Your task to perform on an android device: turn notification dots off Image 0: 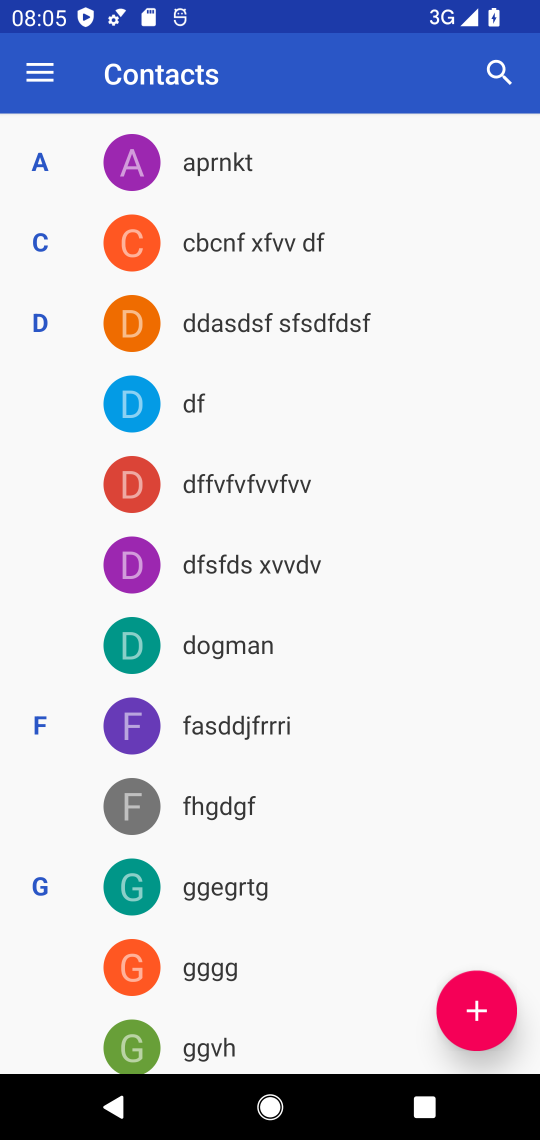
Step 0: press home button
Your task to perform on an android device: turn notification dots off Image 1: 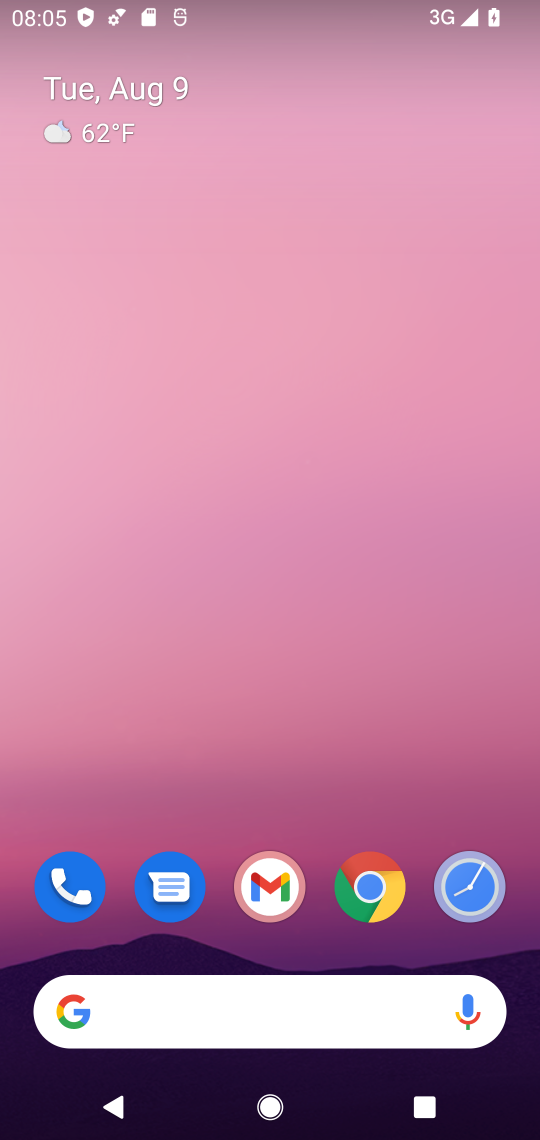
Step 1: drag from (313, 790) to (420, 9)
Your task to perform on an android device: turn notification dots off Image 2: 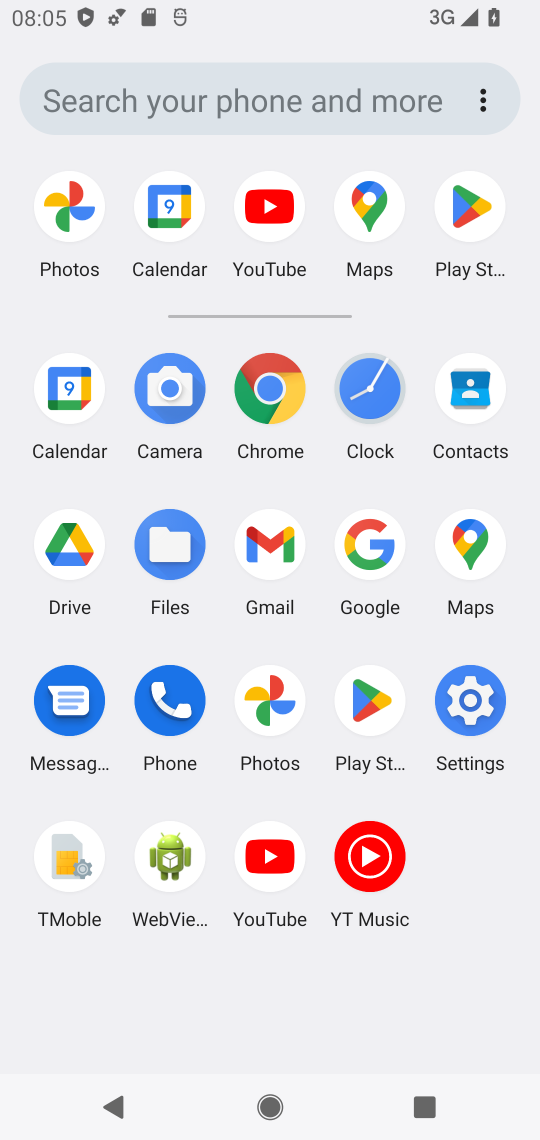
Step 2: click (467, 700)
Your task to perform on an android device: turn notification dots off Image 3: 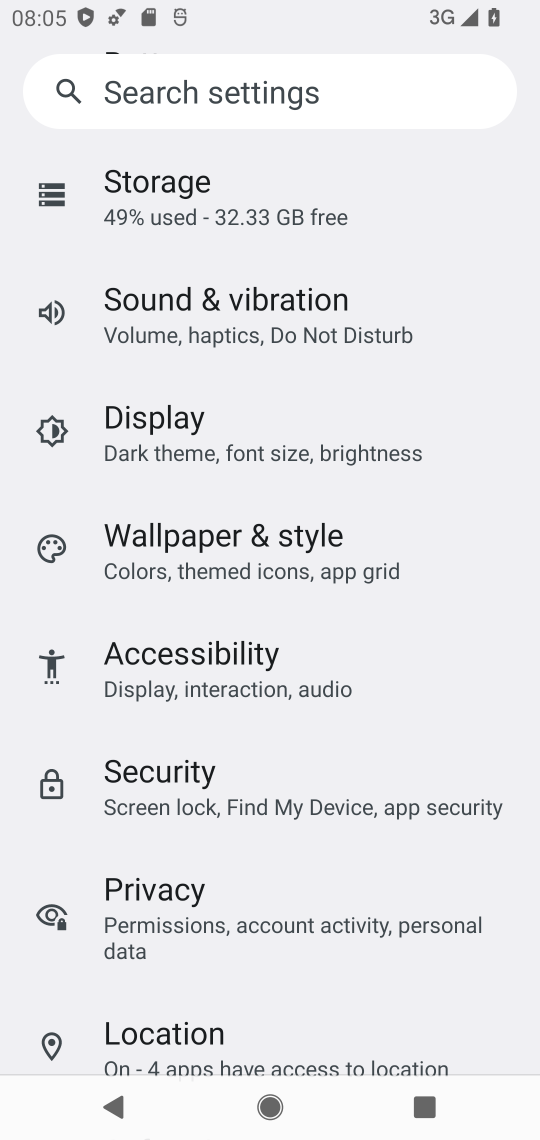
Step 3: drag from (367, 285) to (447, 856)
Your task to perform on an android device: turn notification dots off Image 4: 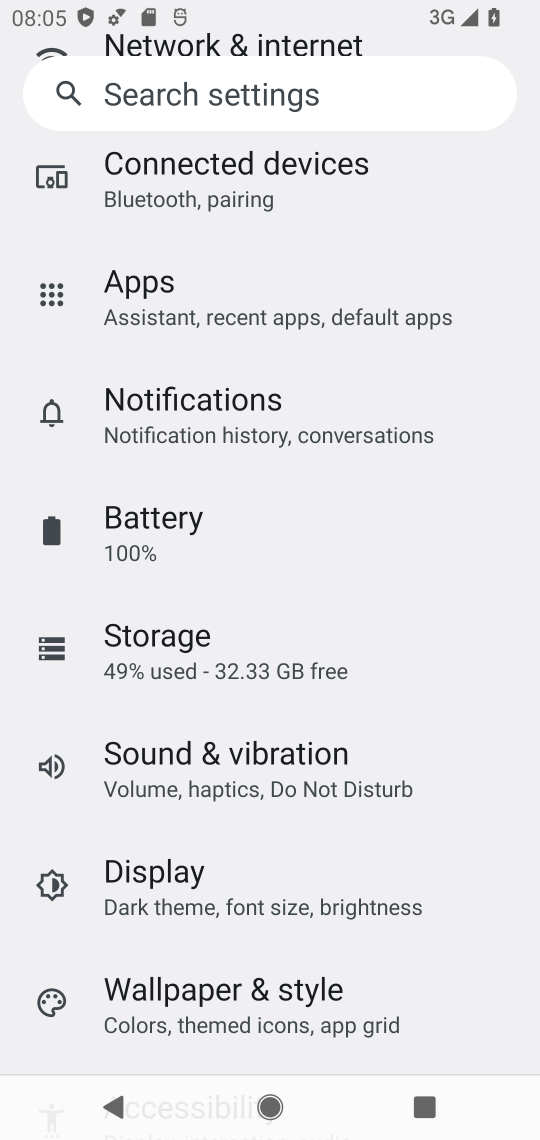
Step 4: click (294, 426)
Your task to perform on an android device: turn notification dots off Image 5: 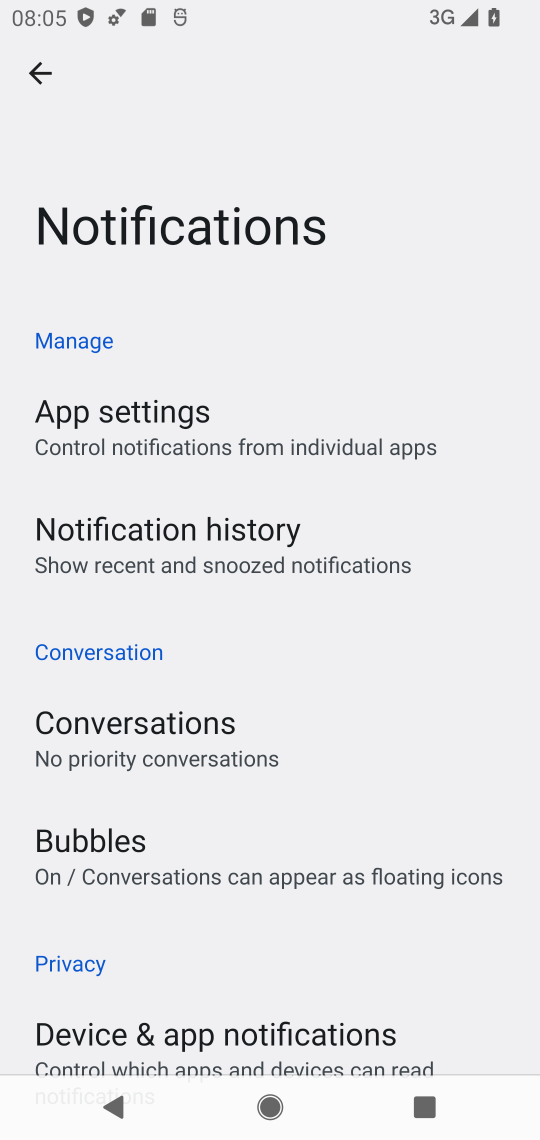
Step 5: task complete